Your task to perform on an android device: turn off wifi Image 0: 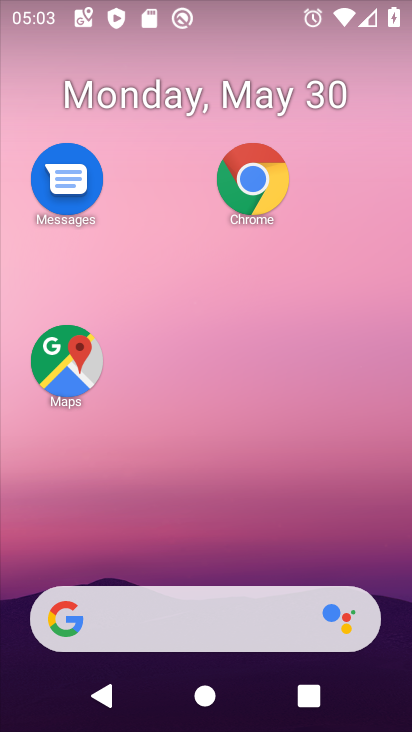
Step 0: drag from (174, 567) to (248, 52)
Your task to perform on an android device: turn off wifi Image 1: 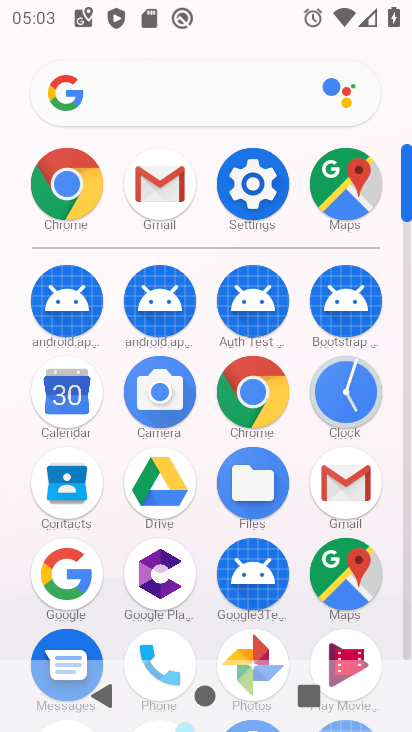
Step 1: click (255, 200)
Your task to perform on an android device: turn off wifi Image 2: 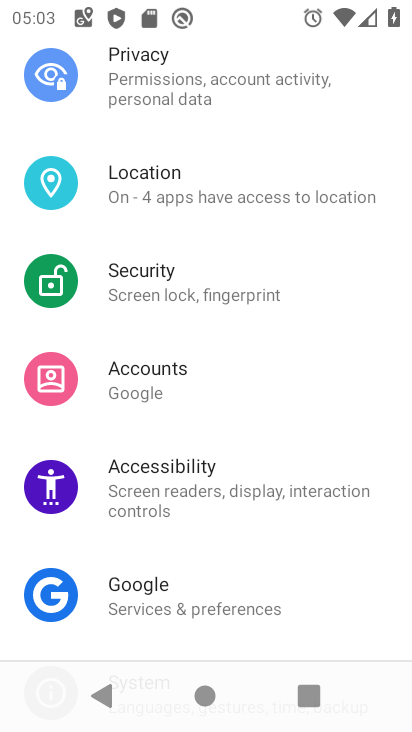
Step 2: drag from (197, 137) to (110, 634)
Your task to perform on an android device: turn off wifi Image 3: 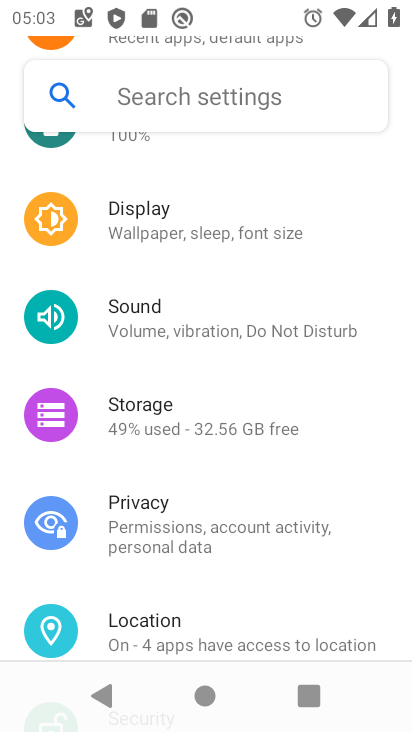
Step 3: drag from (206, 215) to (196, 540)
Your task to perform on an android device: turn off wifi Image 4: 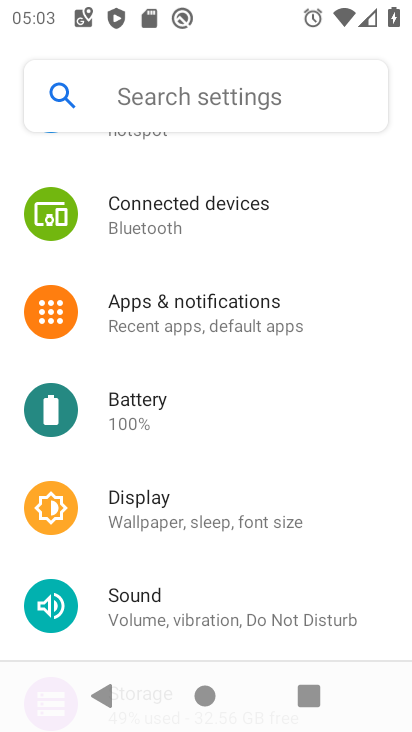
Step 4: drag from (225, 221) to (211, 529)
Your task to perform on an android device: turn off wifi Image 5: 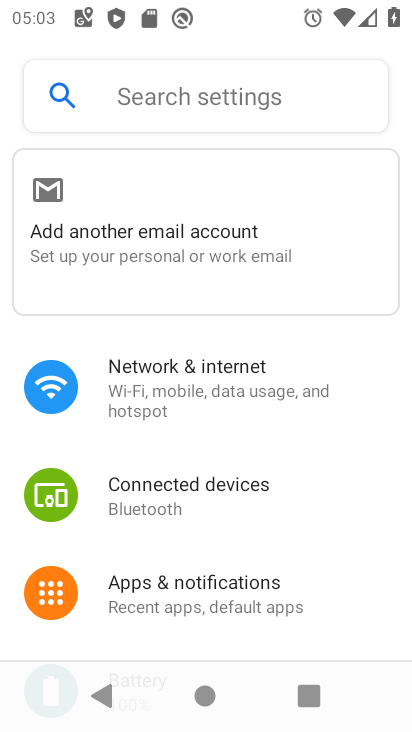
Step 5: click (203, 326)
Your task to perform on an android device: turn off wifi Image 6: 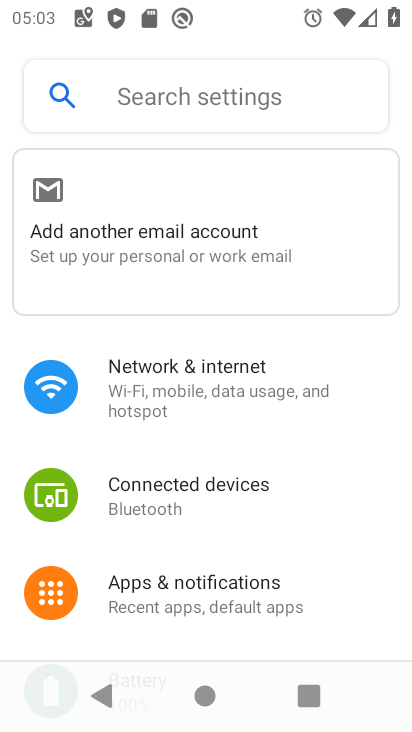
Step 6: click (215, 360)
Your task to perform on an android device: turn off wifi Image 7: 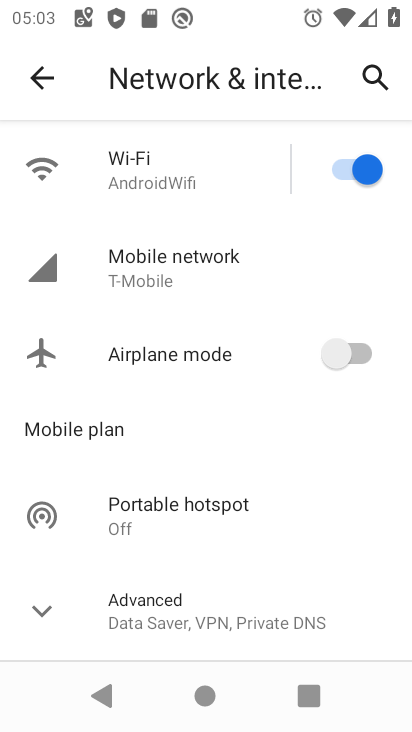
Step 7: click (334, 185)
Your task to perform on an android device: turn off wifi Image 8: 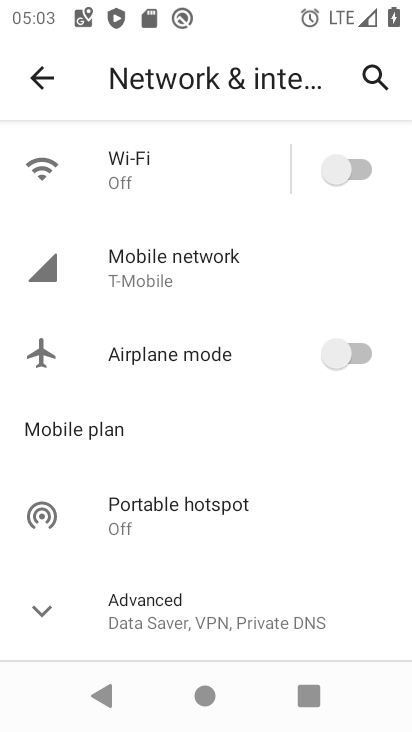
Step 8: task complete